Your task to perform on an android device: add a label to a message in the gmail app Image 0: 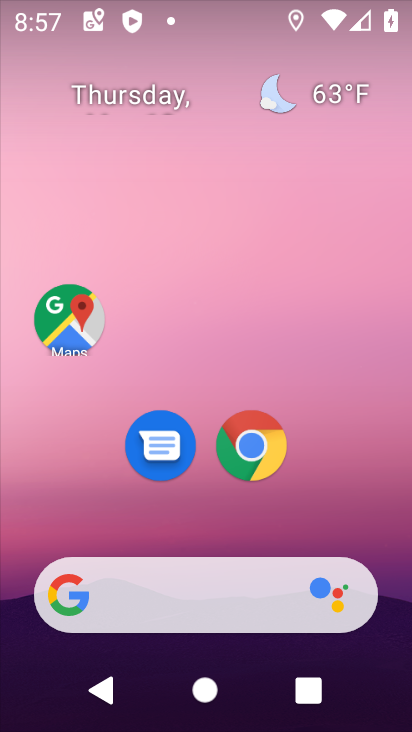
Step 0: drag from (212, 521) to (242, 108)
Your task to perform on an android device: add a label to a message in the gmail app Image 1: 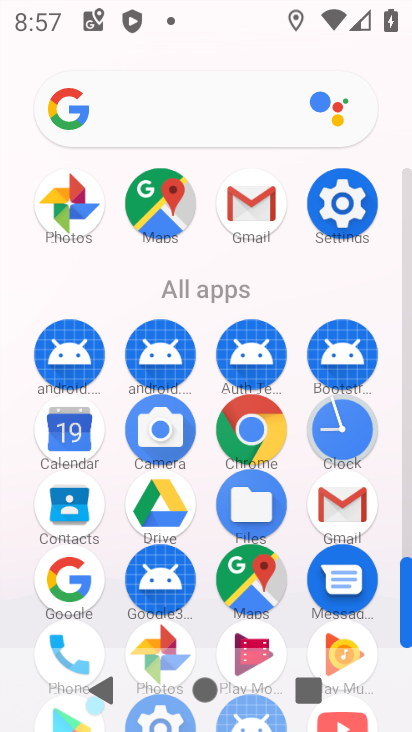
Step 1: click (348, 505)
Your task to perform on an android device: add a label to a message in the gmail app Image 2: 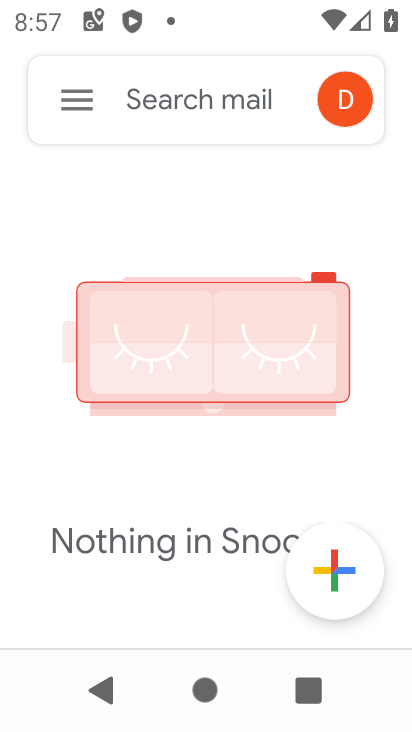
Step 2: click (54, 102)
Your task to perform on an android device: add a label to a message in the gmail app Image 3: 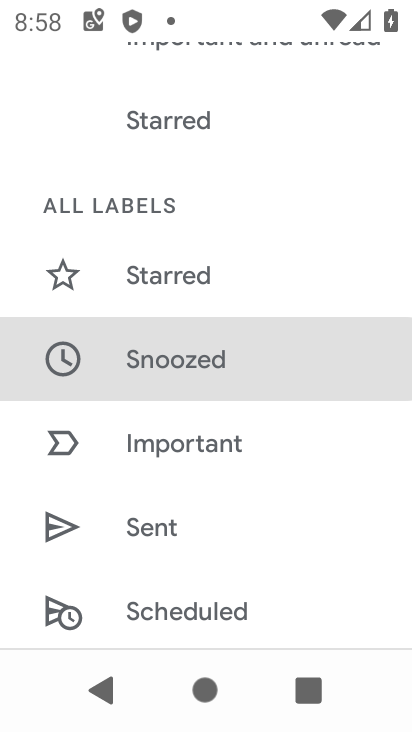
Step 3: drag from (175, 561) to (241, 283)
Your task to perform on an android device: add a label to a message in the gmail app Image 4: 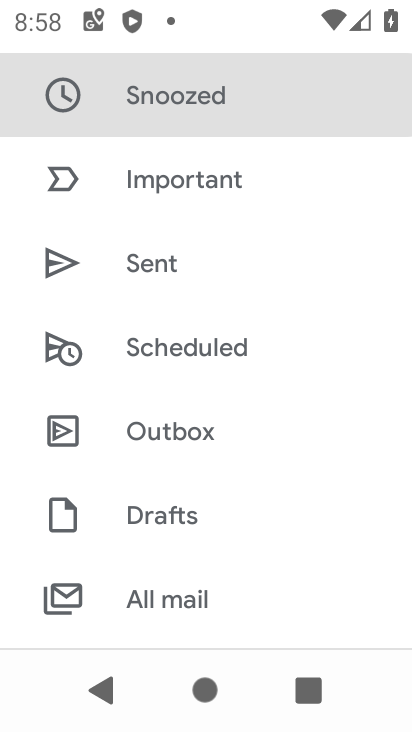
Step 4: click (161, 598)
Your task to perform on an android device: add a label to a message in the gmail app Image 5: 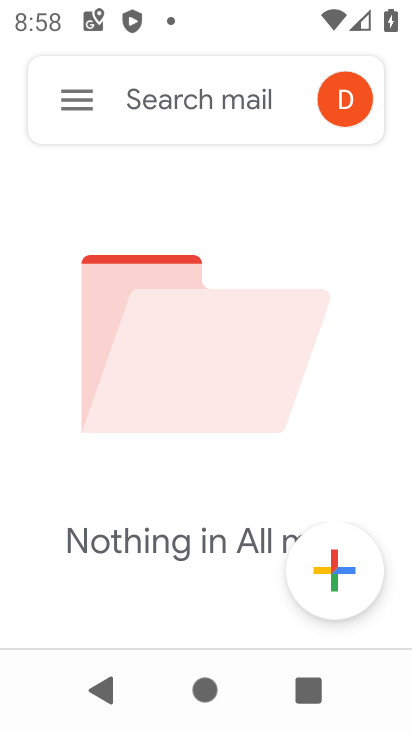
Step 5: task complete